Your task to perform on an android device: check out phone information Image 0: 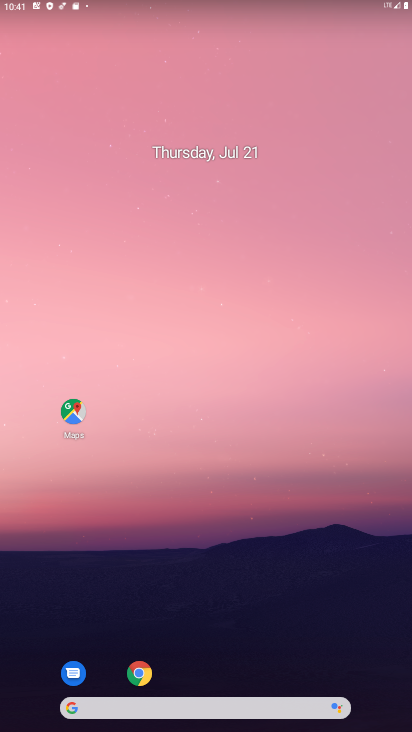
Step 0: drag from (232, 652) to (255, 190)
Your task to perform on an android device: check out phone information Image 1: 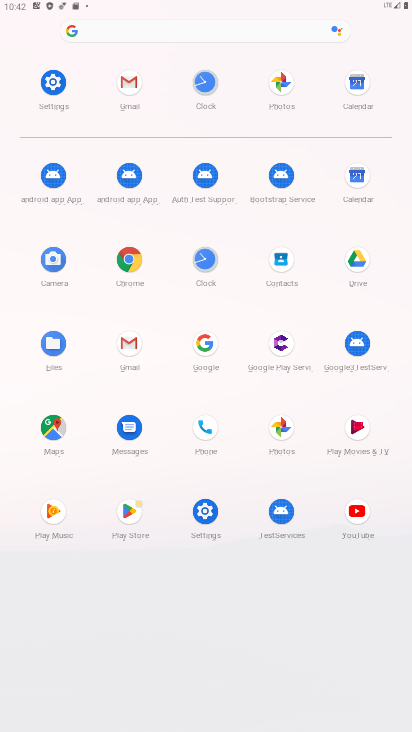
Step 1: click (201, 500)
Your task to perform on an android device: check out phone information Image 2: 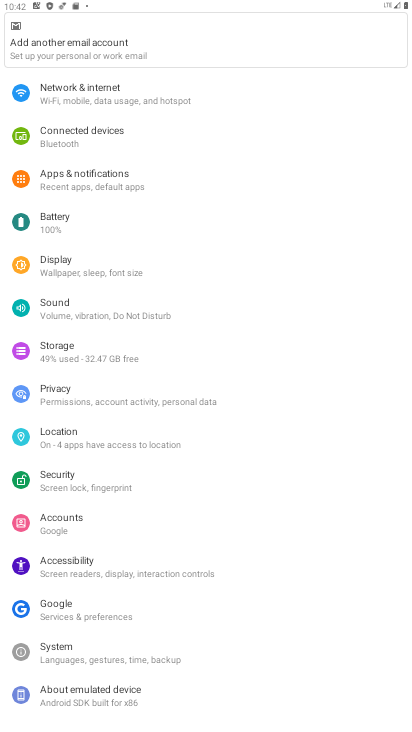
Step 2: click (147, 703)
Your task to perform on an android device: check out phone information Image 3: 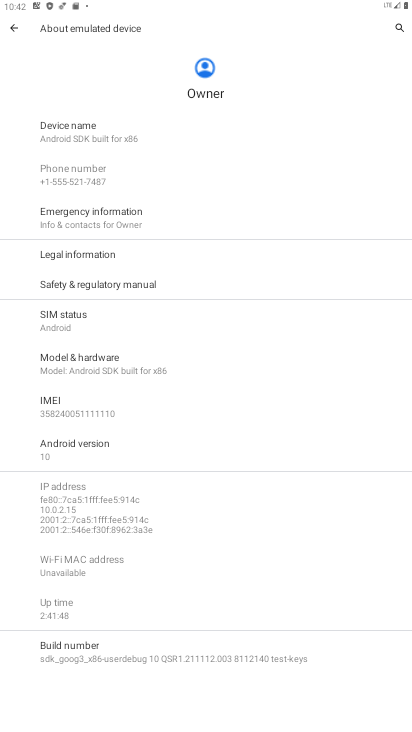
Step 3: task complete